Your task to perform on an android device: Open the map Image 0: 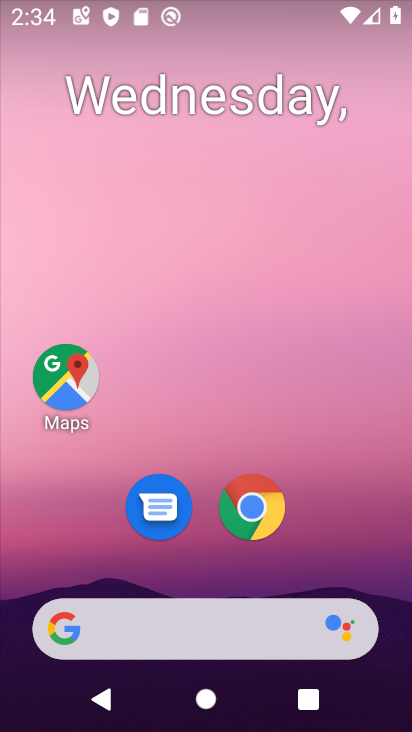
Step 0: click (66, 400)
Your task to perform on an android device: Open the map Image 1: 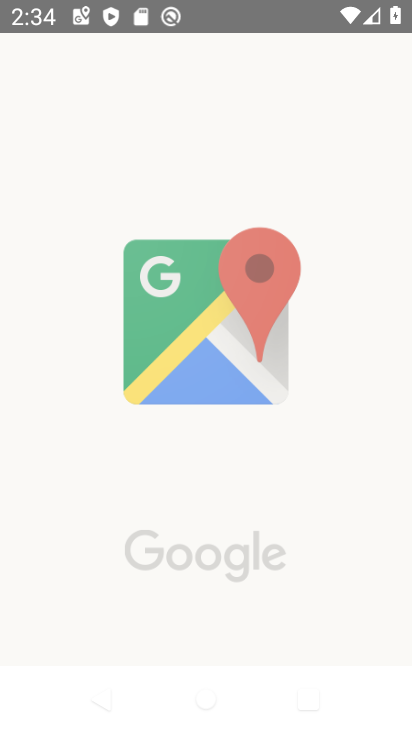
Step 1: task complete